Your task to perform on an android device: make emails show in primary in the gmail app Image 0: 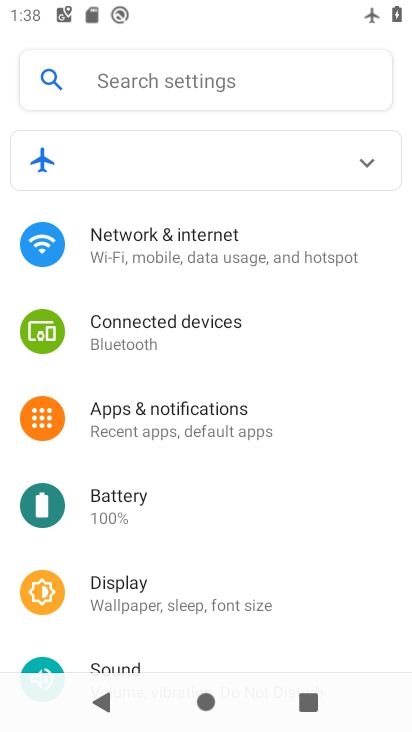
Step 0: drag from (317, 593) to (290, 360)
Your task to perform on an android device: make emails show in primary in the gmail app Image 1: 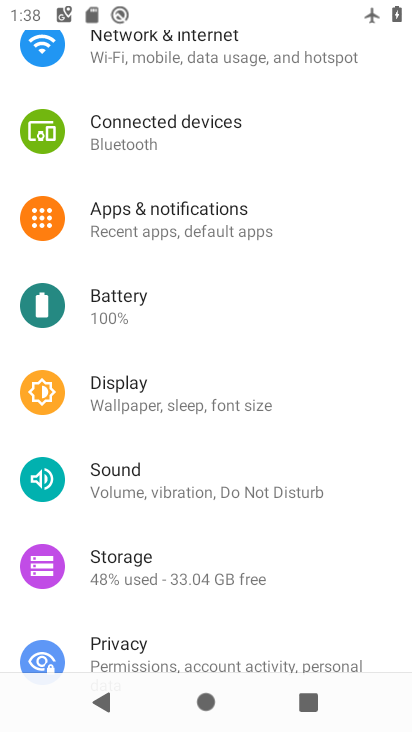
Step 1: drag from (225, 596) to (205, 346)
Your task to perform on an android device: make emails show in primary in the gmail app Image 2: 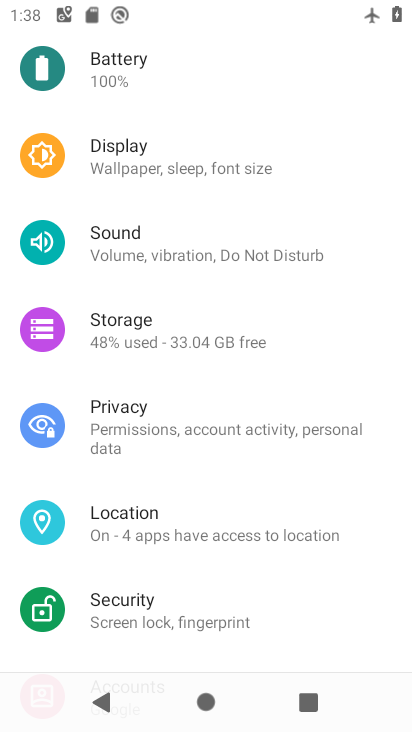
Step 2: drag from (195, 422) to (186, 172)
Your task to perform on an android device: make emails show in primary in the gmail app Image 3: 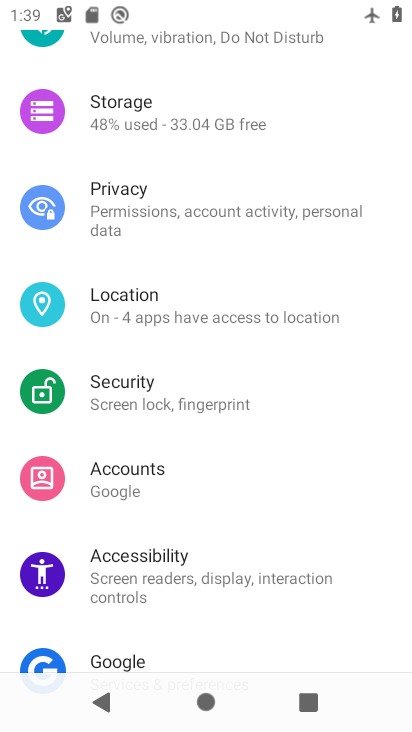
Step 3: drag from (201, 563) to (195, 201)
Your task to perform on an android device: make emails show in primary in the gmail app Image 4: 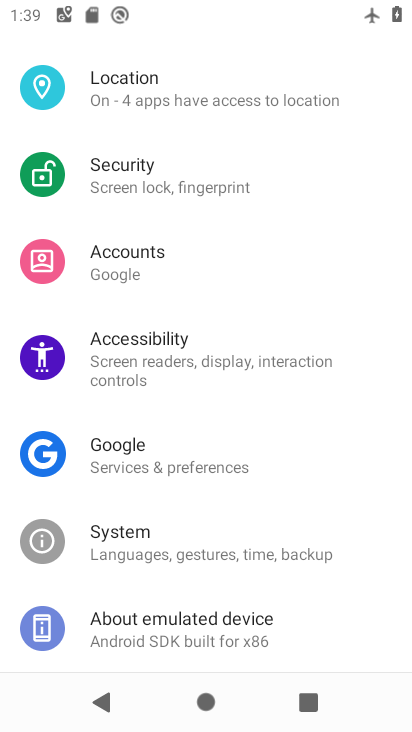
Step 4: drag from (212, 598) to (171, 248)
Your task to perform on an android device: make emails show in primary in the gmail app Image 5: 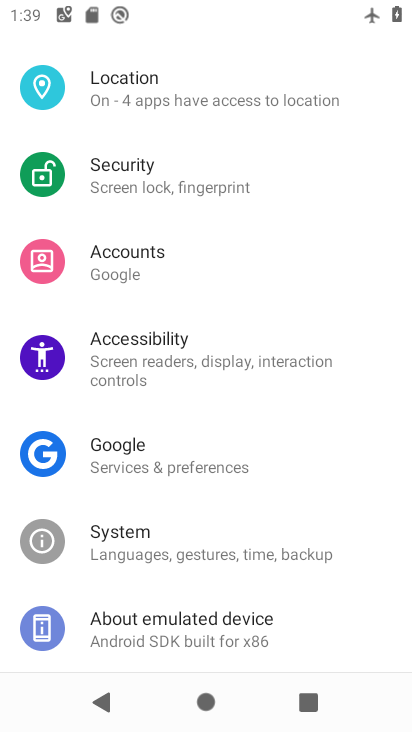
Step 5: drag from (155, 115) to (169, 359)
Your task to perform on an android device: make emails show in primary in the gmail app Image 6: 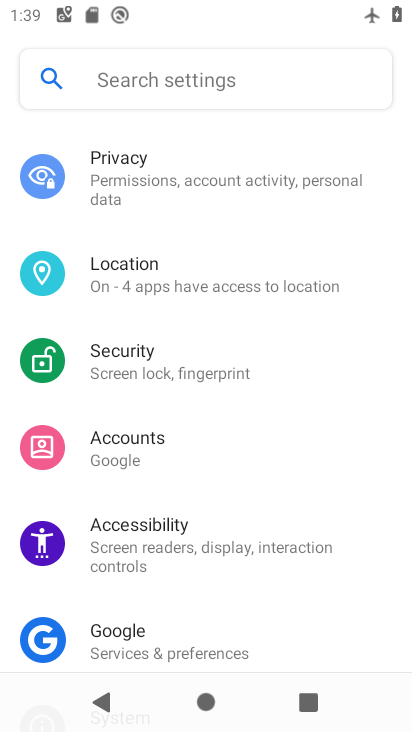
Step 6: press home button
Your task to perform on an android device: make emails show in primary in the gmail app Image 7: 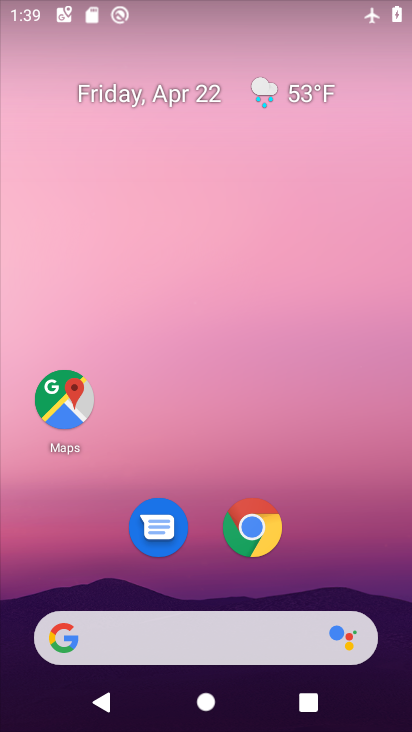
Step 7: drag from (317, 503) to (314, 0)
Your task to perform on an android device: make emails show in primary in the gmail app Image 8: 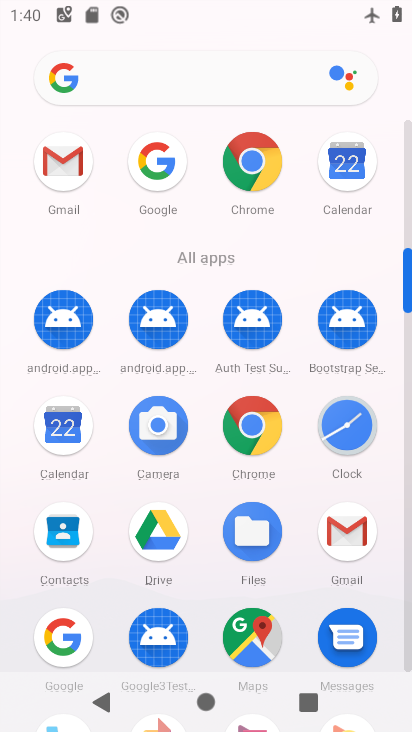
Step 8: drag from (213, 267) to (194, 152)
Your task to perform on an android device: make emails show in primary in the gmail app Image 9: 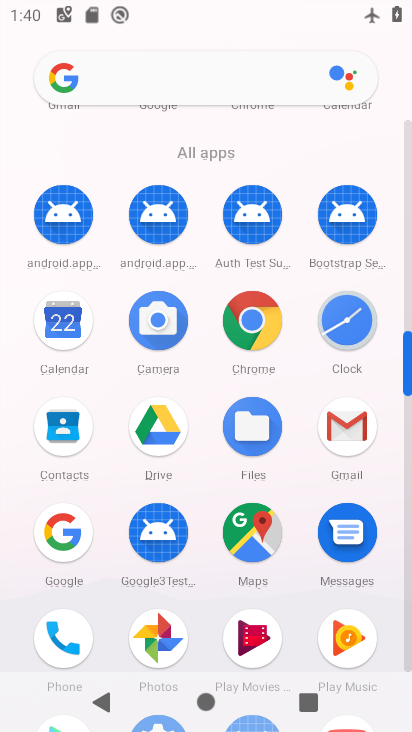
Step 9: click (350, 430)
Your task to perform on an android device: make emails show in primary in the gmail app Image 10: 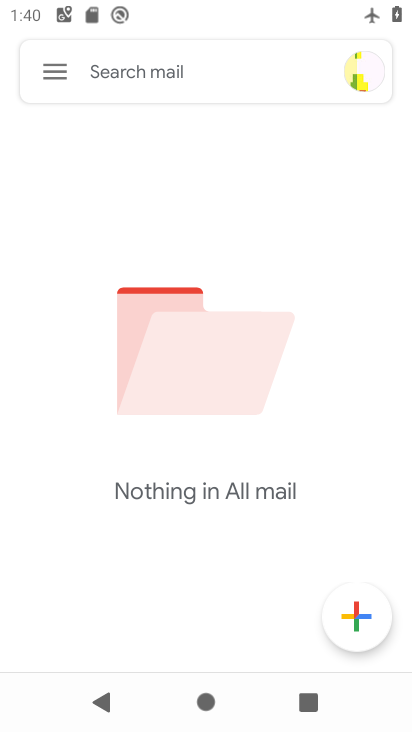
Step 10: click (38, 75)
Your task to perform on an android device: make emails show in primary in the gmail app Image 11: 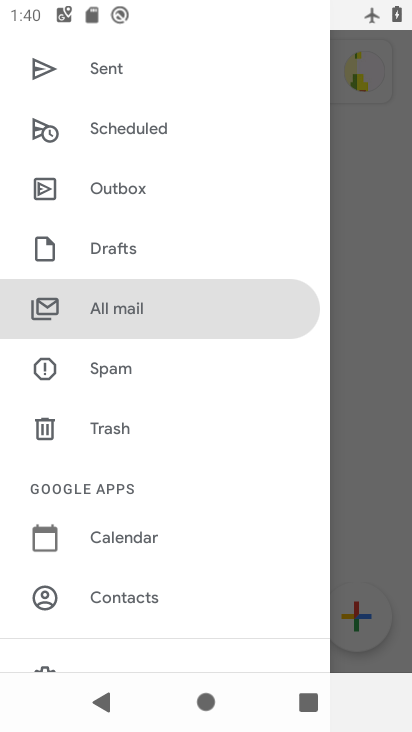
Step 11: drag from (145, 617) to (140, 231)
Your task to perform on an android device: make emails show in primary in the gmail app Image 12: 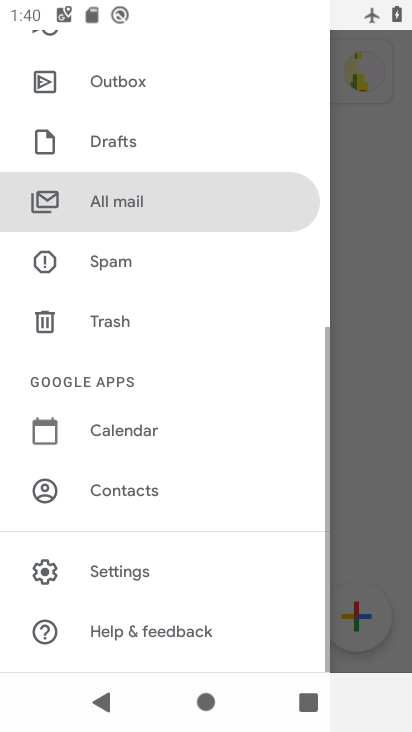
Step 12: click (98, 576)
Your task to perform on an android device: make emails show in primary in the gmail app Image 13: 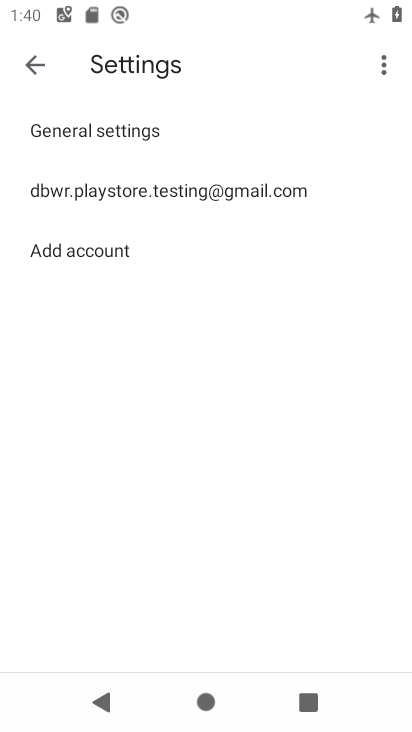
Step 13: click (124, 189)
Your task to perform on an android device: make emails show in primary in the gmail app Image 14: 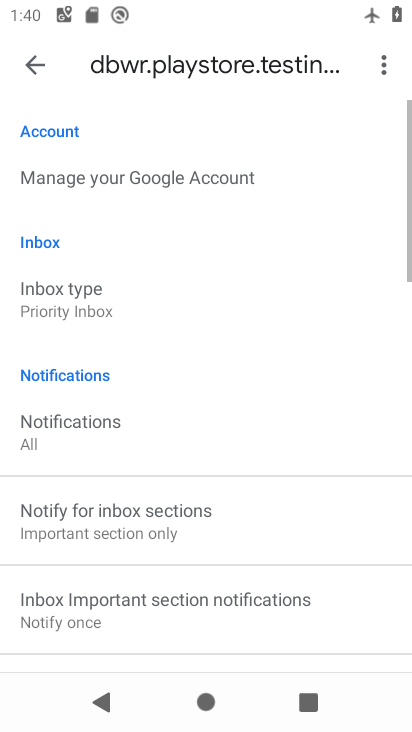
Step 14: click (100, 292)
Your task to perform on an android device: make emails show in primary in the gmail app Image 15: 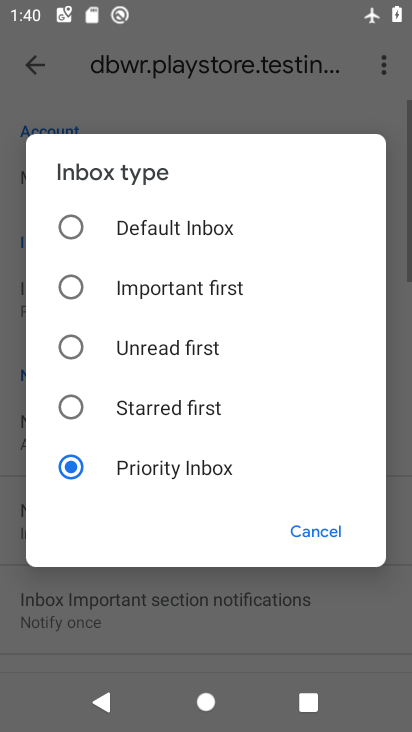
Step 15: click (71, 217)
Your task to perform on an android device: make emails show in primary in the gmail app Image 16: 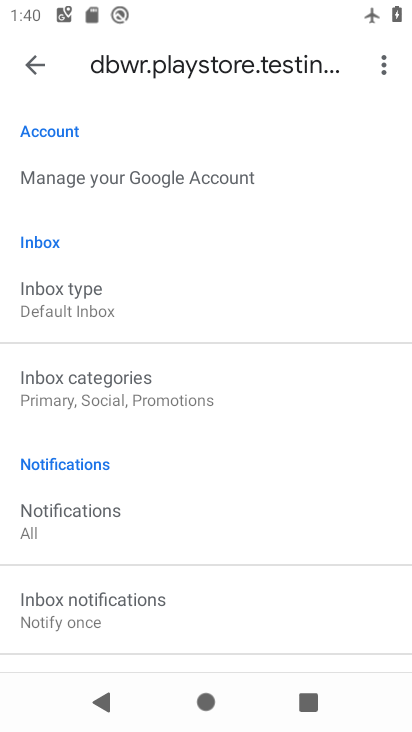
Step 16: click (88, 382)
Your task to perform on an android device: make emails show in primary in the gmail app Image 17: 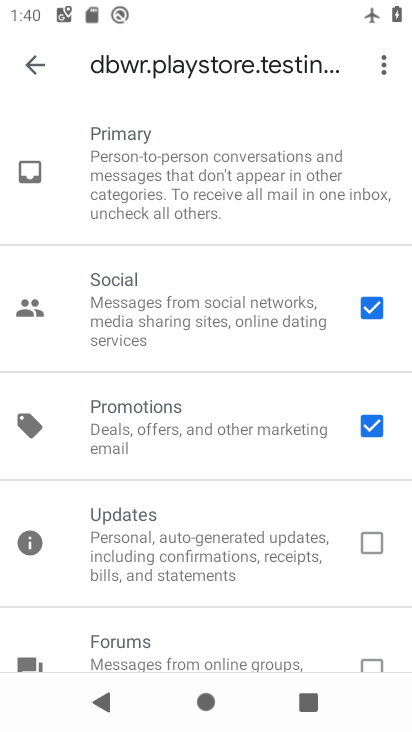
Step 17: click (287, 428)
Your task to perform on an android device: make emails show in primary in the gmail app Image 18: 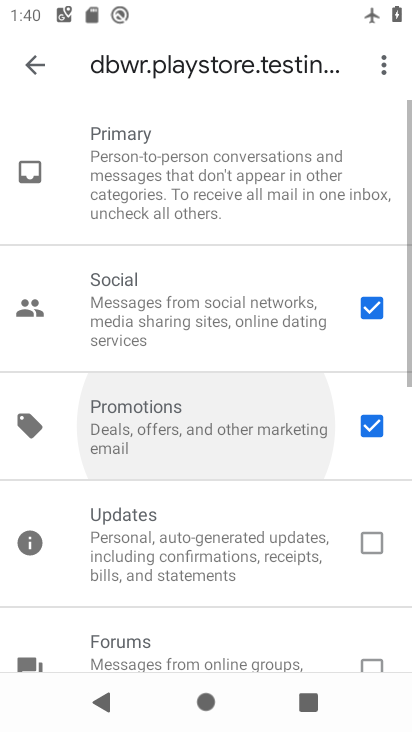
Step 18: click (294, 334)
Your task to perform on an android device: make emails show in primary in the gmail app Image 19: 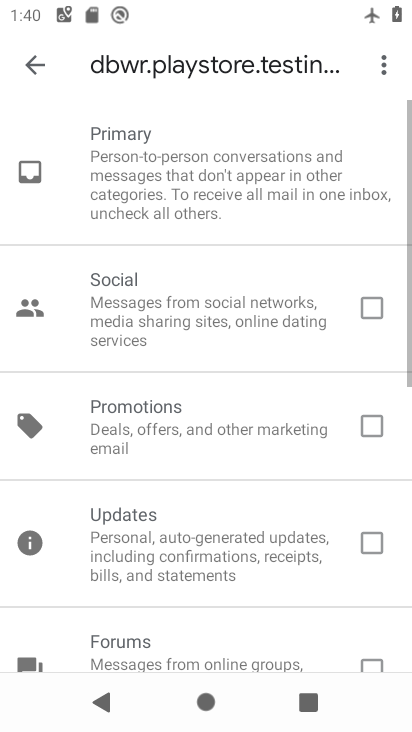
Step 19: click (38, 52)
Your task to perform on an android device: make emails show in primary in the gmail app Image 20: 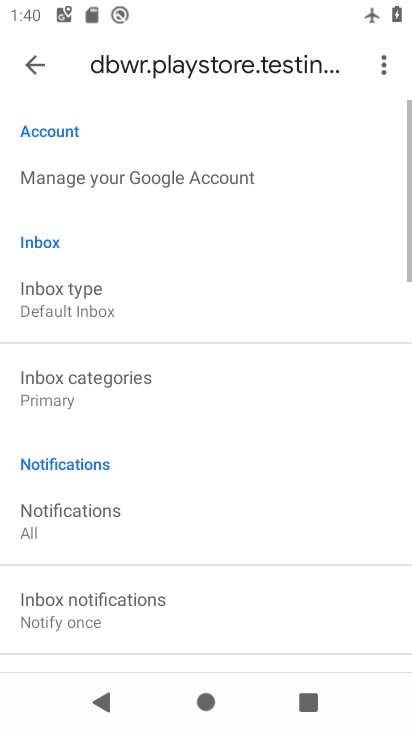
Step 20: task complete